Your task to perform on an android device: change your default location settings in chrome Image 0: 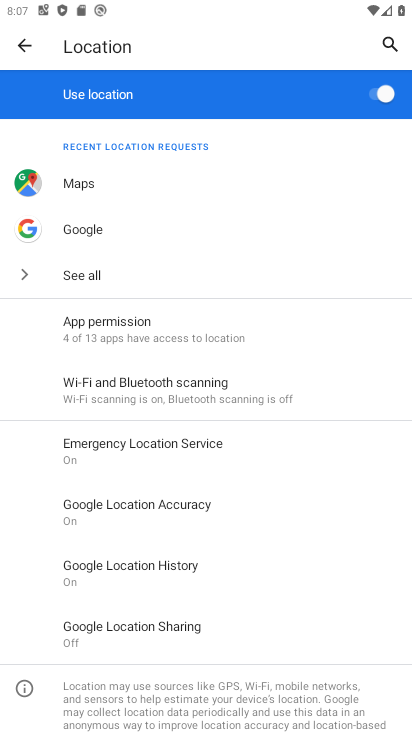
Step 0: click (30, 55)
Your task to perform on an android device: change your default location settings in chrome Image 1: 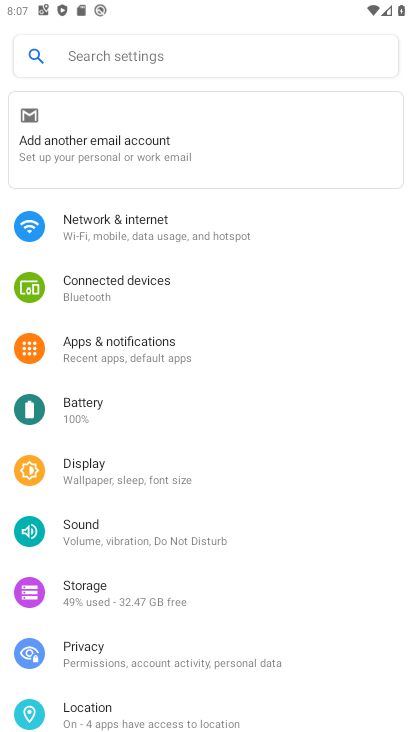
Step 1: press home button
Your task to perform on an android device: change your default location settings in chrome Image 2: 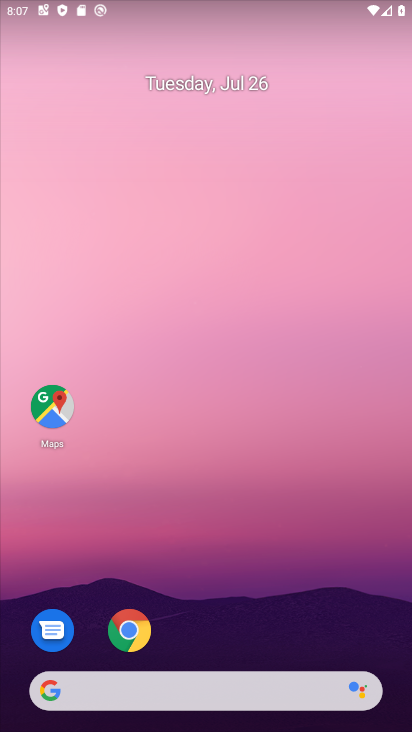
Step 2: click (148, 636)
Your task to perform on an android device: change your default location settings in chrome Image 3: 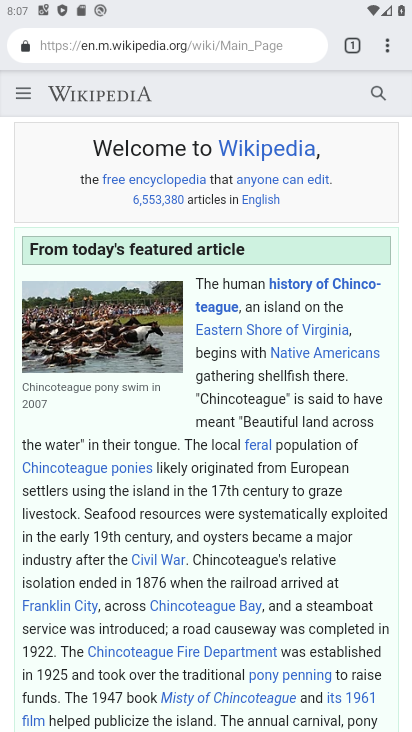
Step 3: click (386, 47)
Your task to perform on an android device: change your default location settings in chrome Image 4: 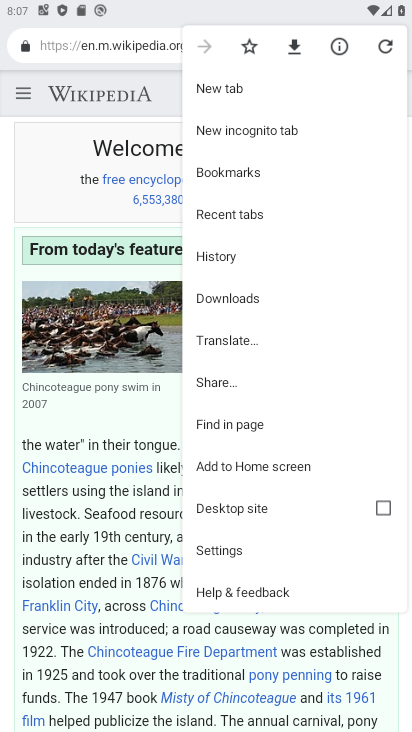
Step 4: click (218, 540)
Your task to perform on an android device: change your default location settings in chrome Image 5: 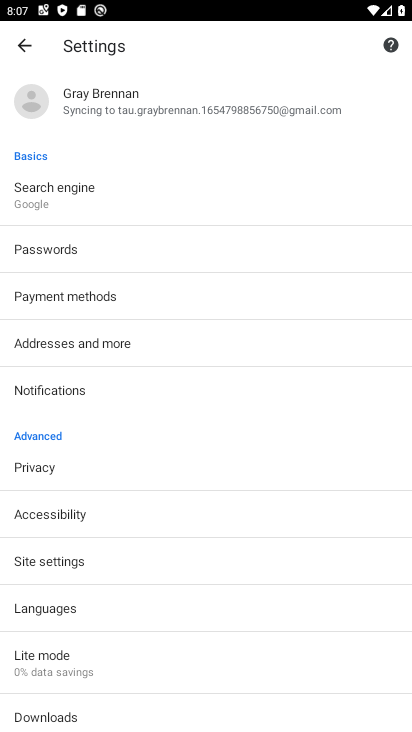
Step 5: click (73, 364)
Your task to perform on an android device: change your default location settings in chrome Image 6: 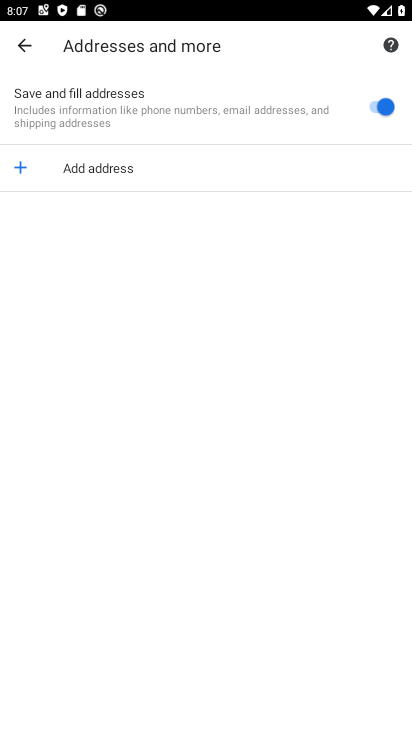
Step 6: task complete